Your task to perform on an android device: turn on the 24-hour format for clock Image 0: 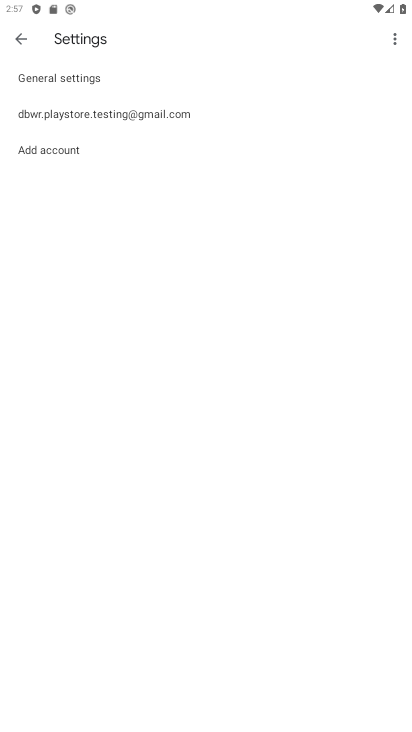
Step 0: press home button
Your task to perform on an android device: turn on the 24-hour format for clock Image 1: 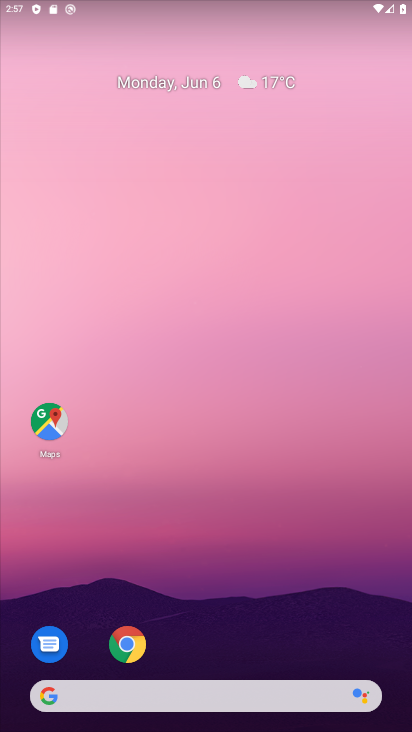
Step 1: drag from (378, 678) to (352, 94)
Your task to perform on an android device: turn on the 24-hour format for clock Image 2: 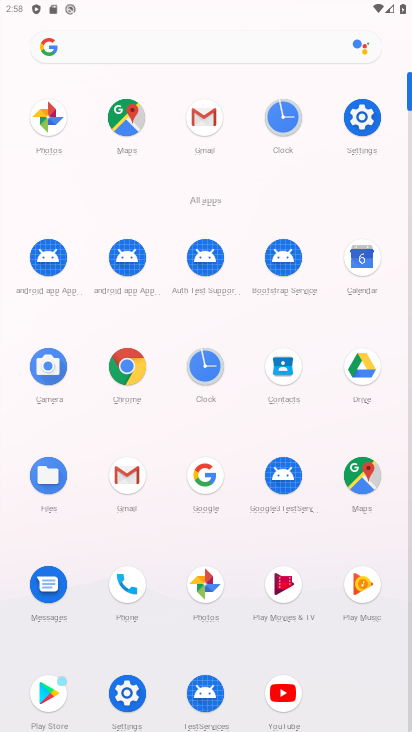
Step 2: click (214, 375)
Your task to perform on an android device: turn on the 24-hour format for clock Image 3: 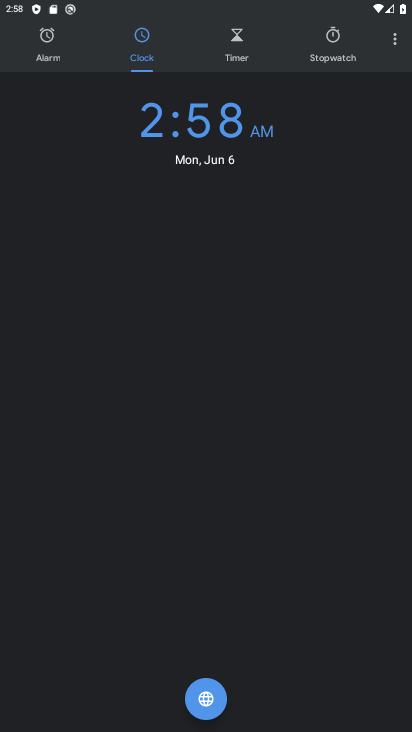
Step 3: click (395, 42)
Your task to perform on an android device: turn on the 24-hour format for clock Image 4: 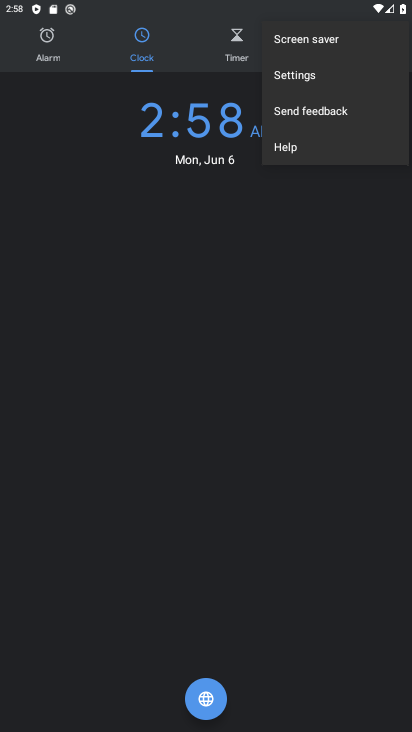
Step 4: click (267, 80)
Your task to perform on an android device: turn on the 24-hour format for clock Image 5: 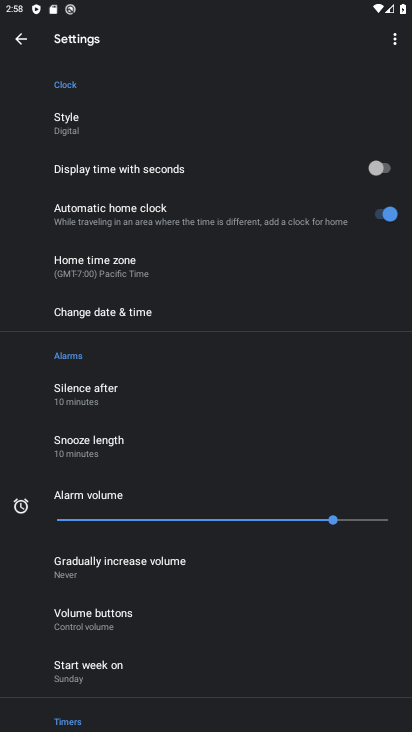
Step 5: click (102, 315)
Your task to perform on an android device: turn on the 24-hour format for clock Image 6: 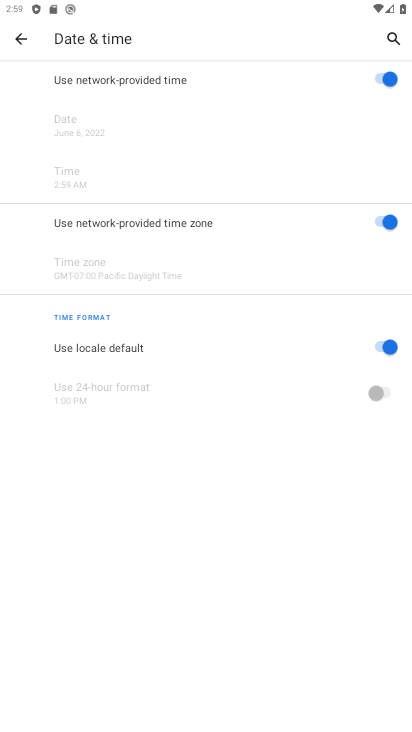
Step 6: click (382, 347)
Your task to perform on an android device: turn on the 24-hour format for clock Image 7: 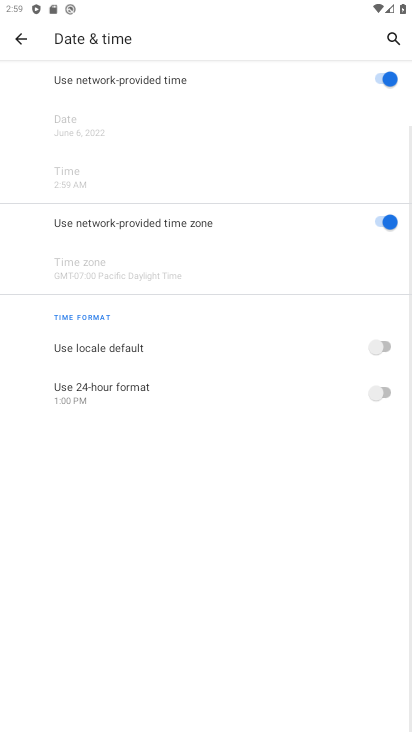
Step 7: click (385, 389)
Your task to perform on an android device: turn on the 24-hour format for clock Image 8: 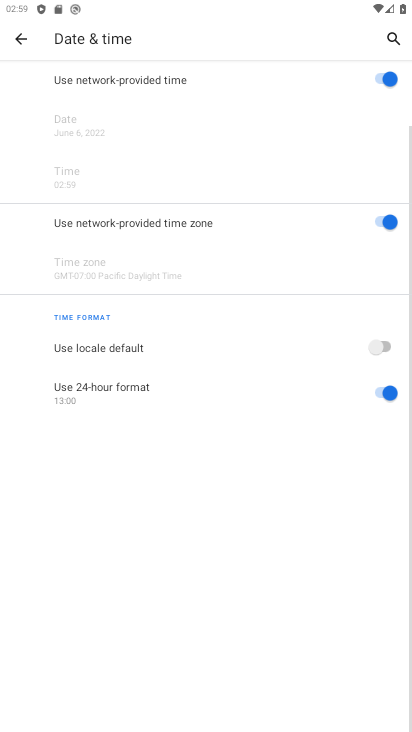
Step 8: task complete